Your task to perform on an android device: visit the assistant section in the google photos Image 0: 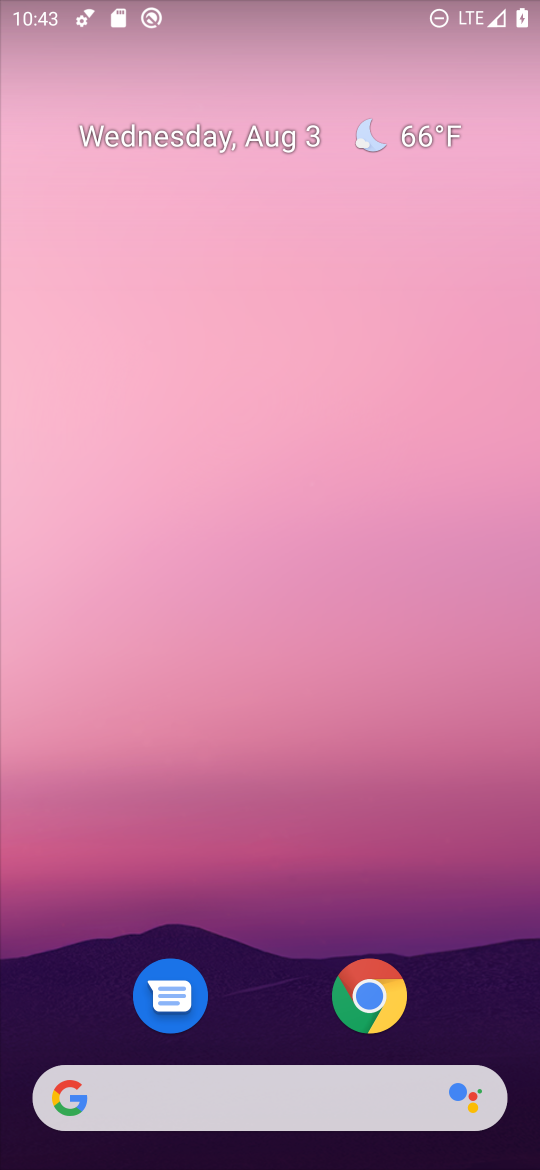
Step 0: drag from (359, 601) to (302, 39)
Your task to perform on an android device: visit the assistant section in the google photos Image 1: 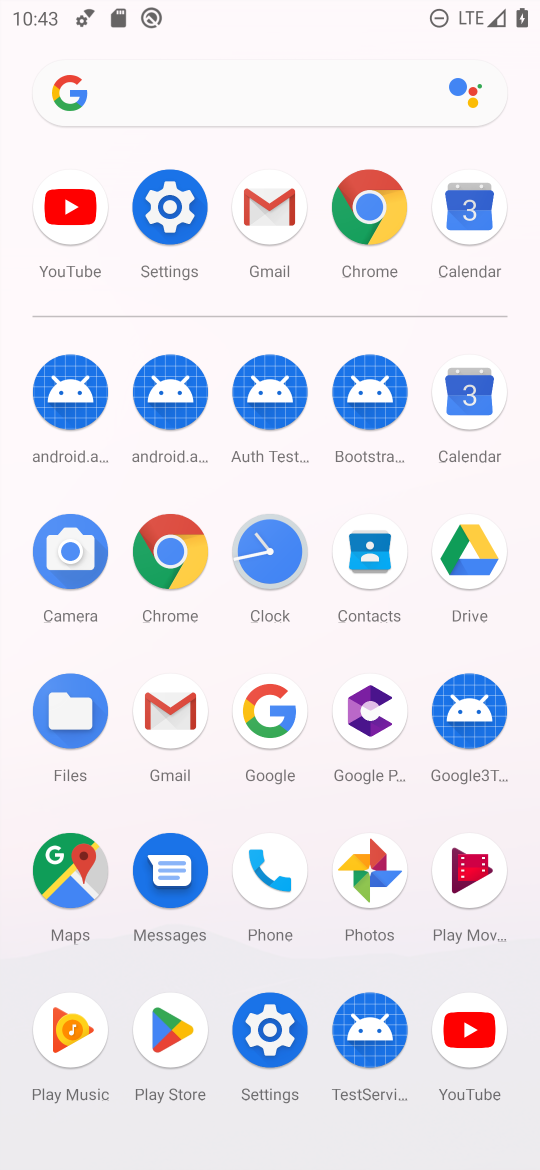
Step 1: click (386, 867)
Your task to perform on an android device: visit the assistant section in the google photos Image 2: 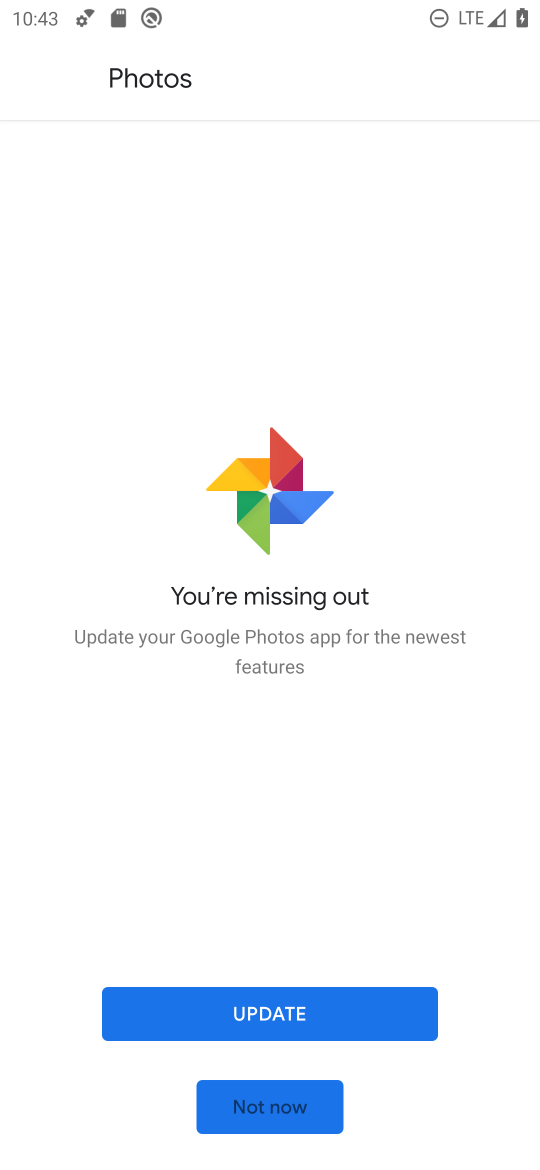
Step 2: click (310, 1110)
Your task to perform on an android device: visit the assistant section in the google photos Image 3: 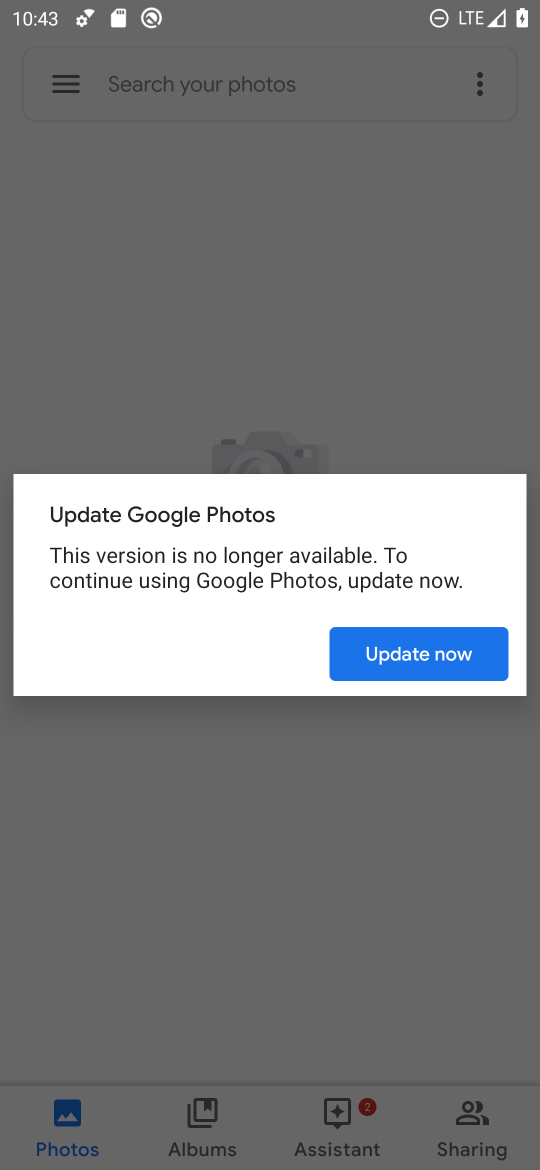
Step 3: click (454, 649)
Your task to perform on an android device: visit the assistant section in the google photos Image 4: 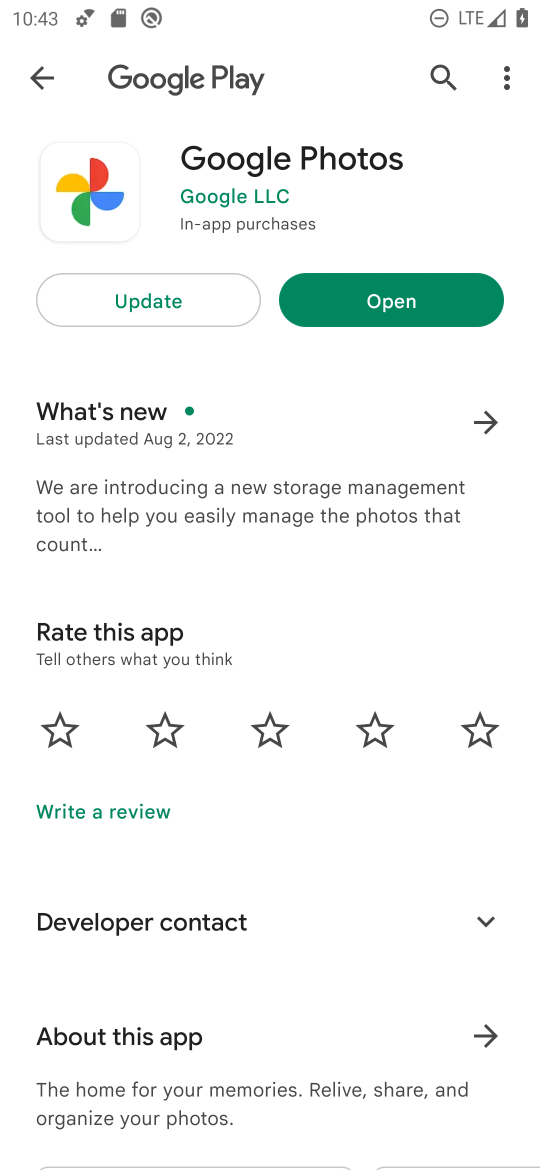
Step 4: click (381, 283)
Your task to perform on an android device: visit the assistant section in the google photos Image 5: 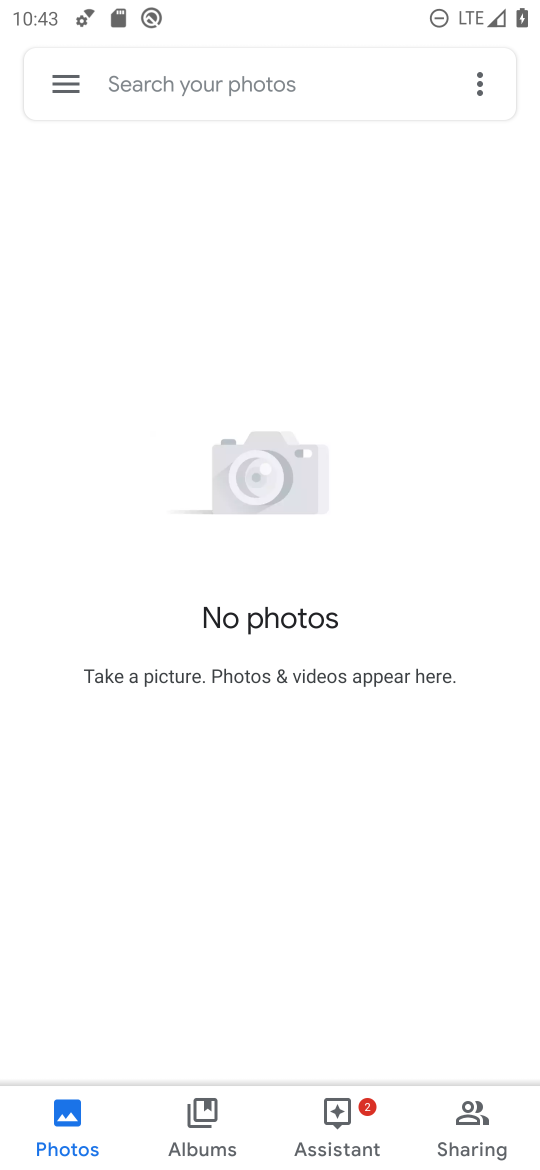
Step 5: click (349, 1134)
Your task to perform on an android device: visit the assistant section in the google photos Image 6: 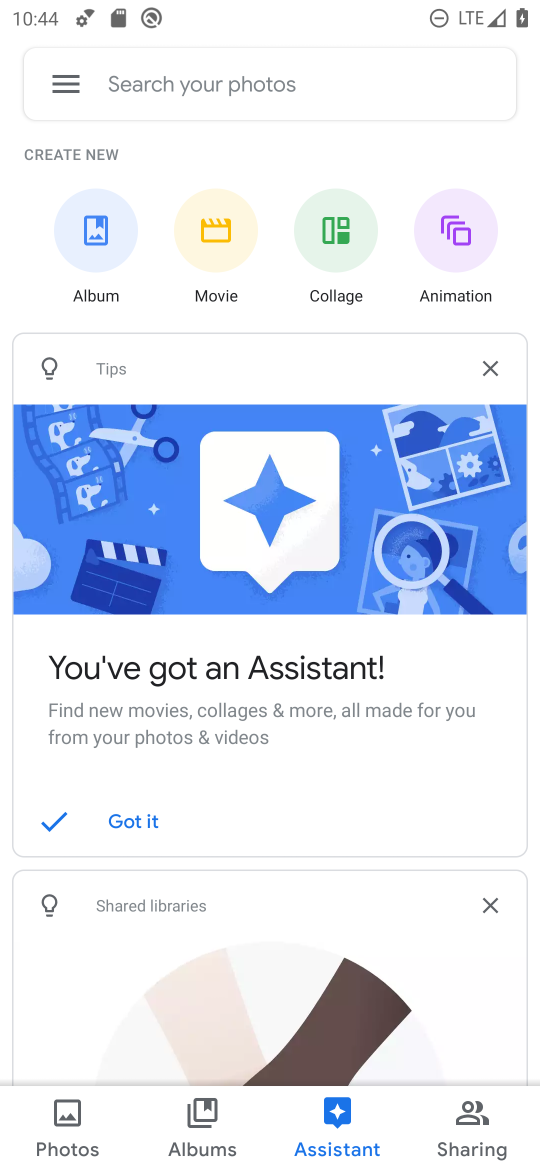
Step 6: task complete